Your task to perform on an android device: open chrome and create a bookmark for the current page Image 0: 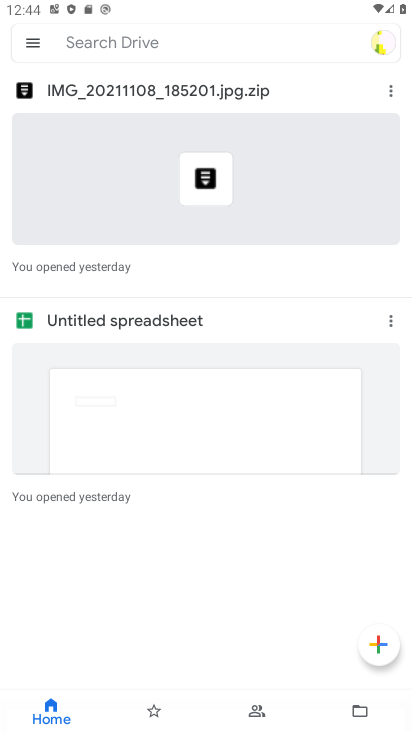
Step 0: press home button
Your task to perform on an android device: open chrome and create a bookmark for the current page Image 1: 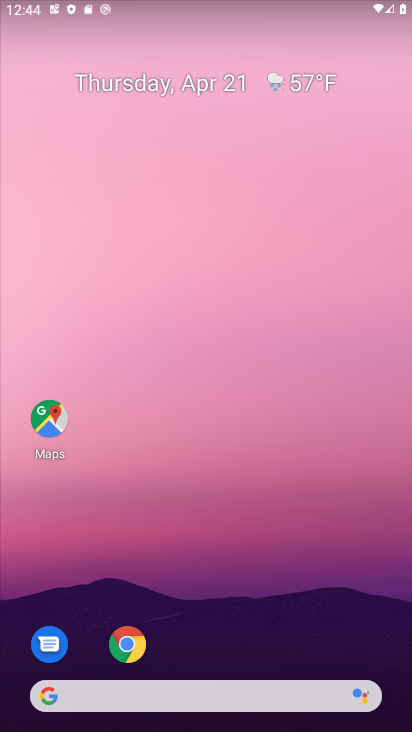
Step 1: click (137, 645)
Your task to perform on an android device: open chrome and create a bookmark for the current page Image 2: 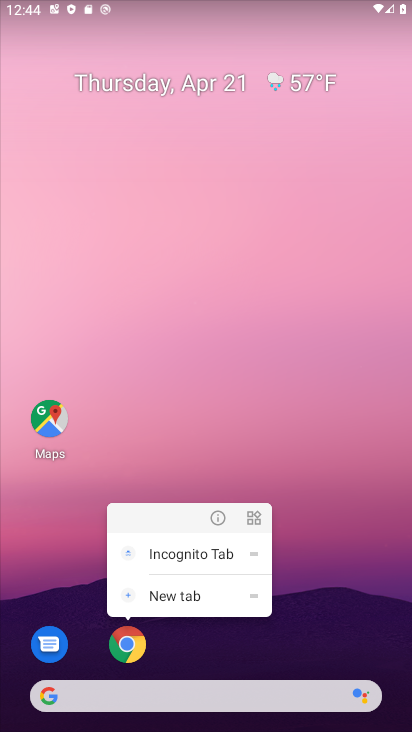
Step 2: click (124, 645)
Your task to perform on an android device: open chrome and create a bookmark for the current page Image 3: 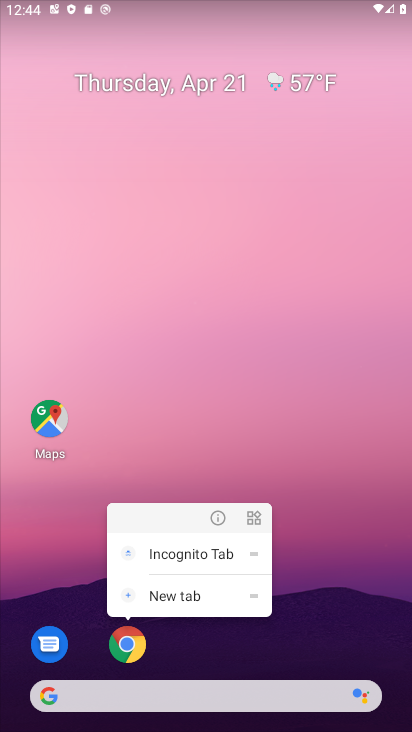
Step 3: click (124, 645)
Your task to perform on an android device: open chrome and create a bookmark for the current page Image 4: 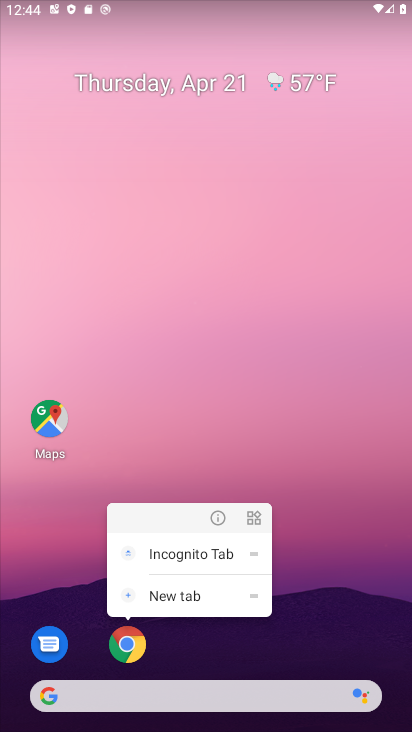
Step 4: click (128, 646)
Your task to perform on an android device: open chrome and create a bookmark for the current page Image 5: 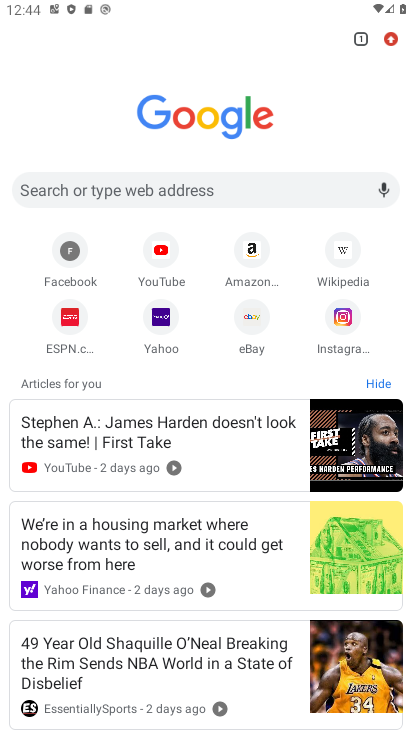
Step 5: task complete